Your task to perform on an android device: Clear the cart on walmart. Add "sony triple a" to the cart on walmart Image 0: 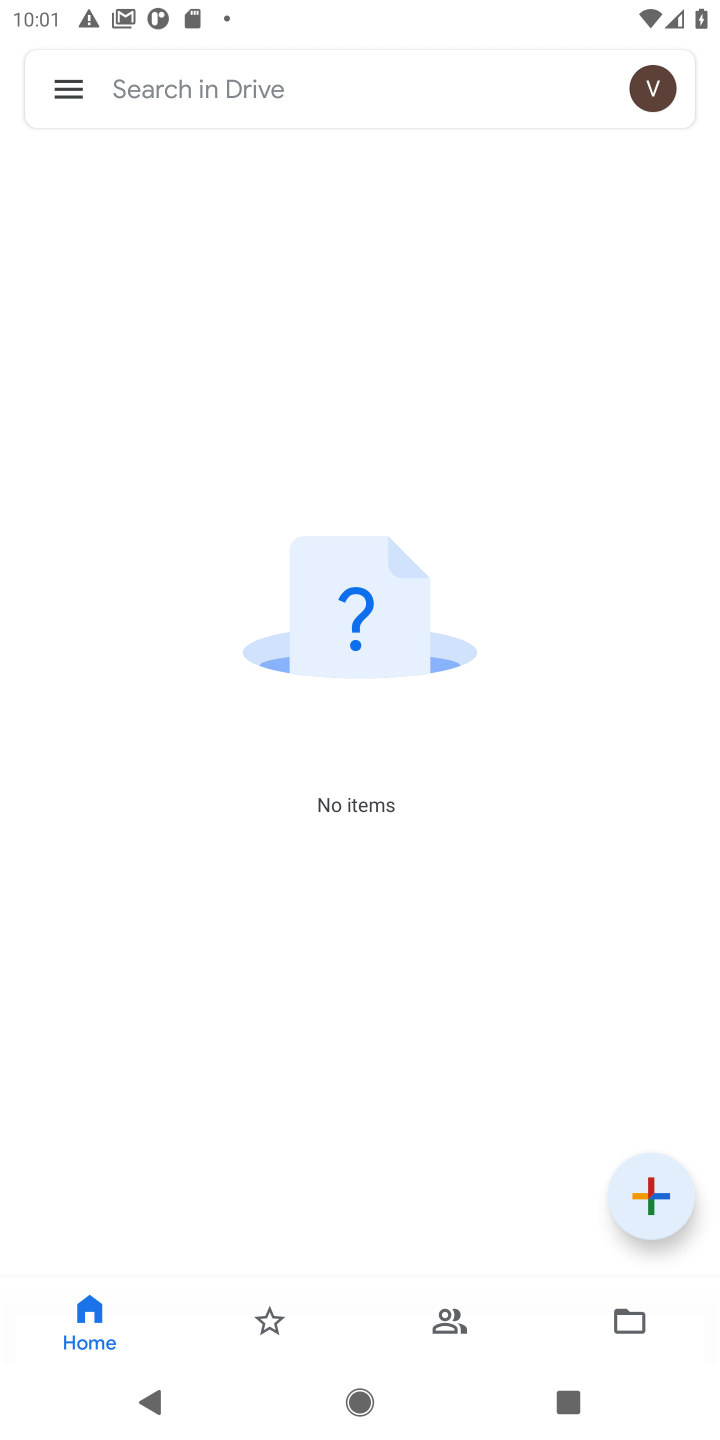
Step 0: press home button
Your task to perform on an android device: Clear the cart on walmart. Add "sony triple a" to the cart on walmart Image 1: 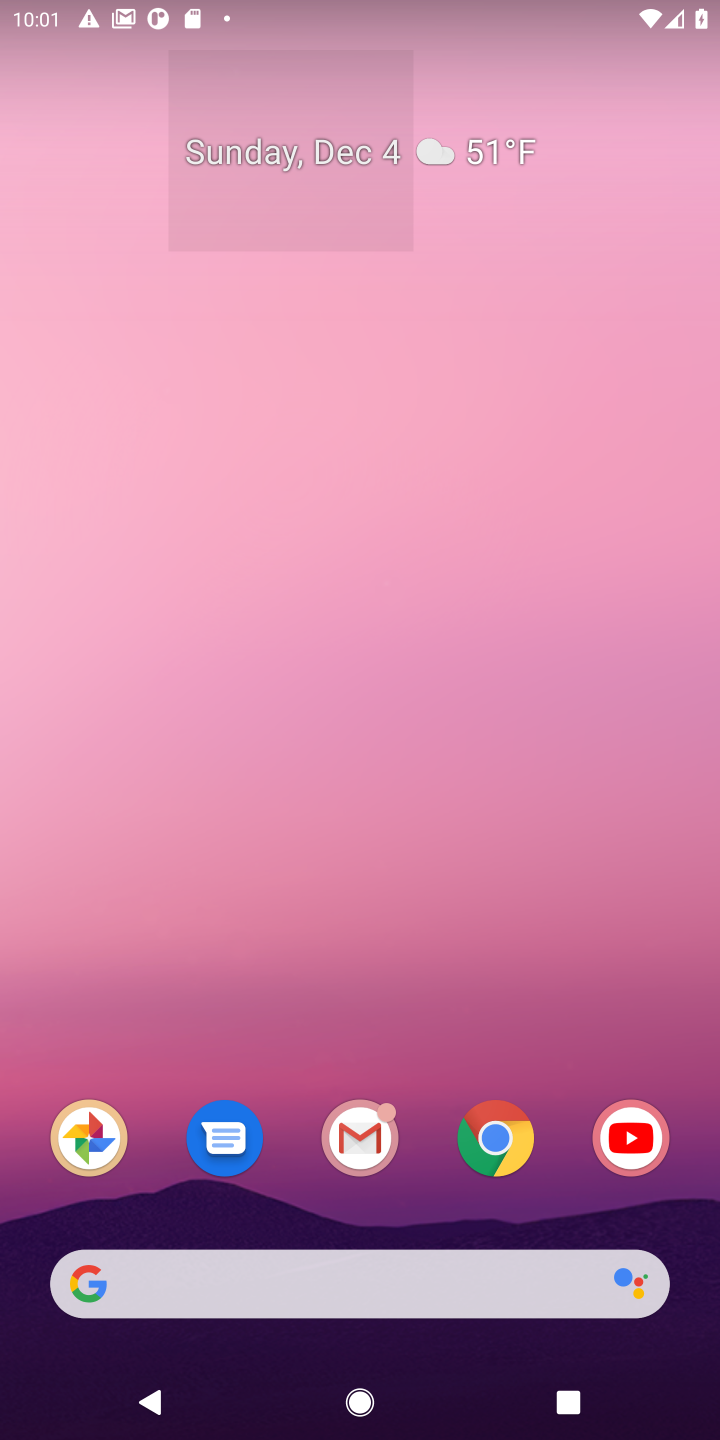
Step 1: click (504, 1127)
Your task to perform on an android device: Clear the cart on walmart. Add "sony triple a" to the cart on walmart Image 2: 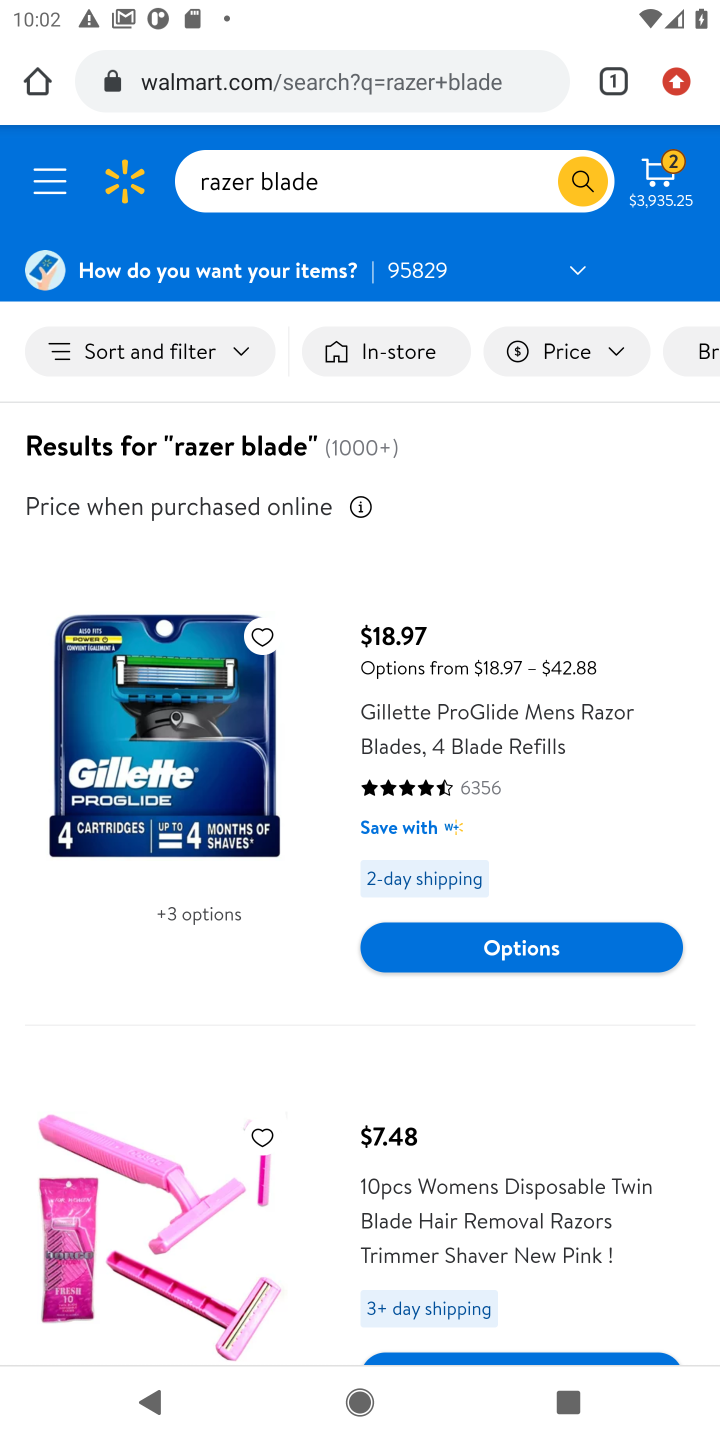
Step 2: click (667, 180)
Your task to perform on an android device: Clear the cart on walmart. Add "sony triple a" to the cart on walmart Image 3: 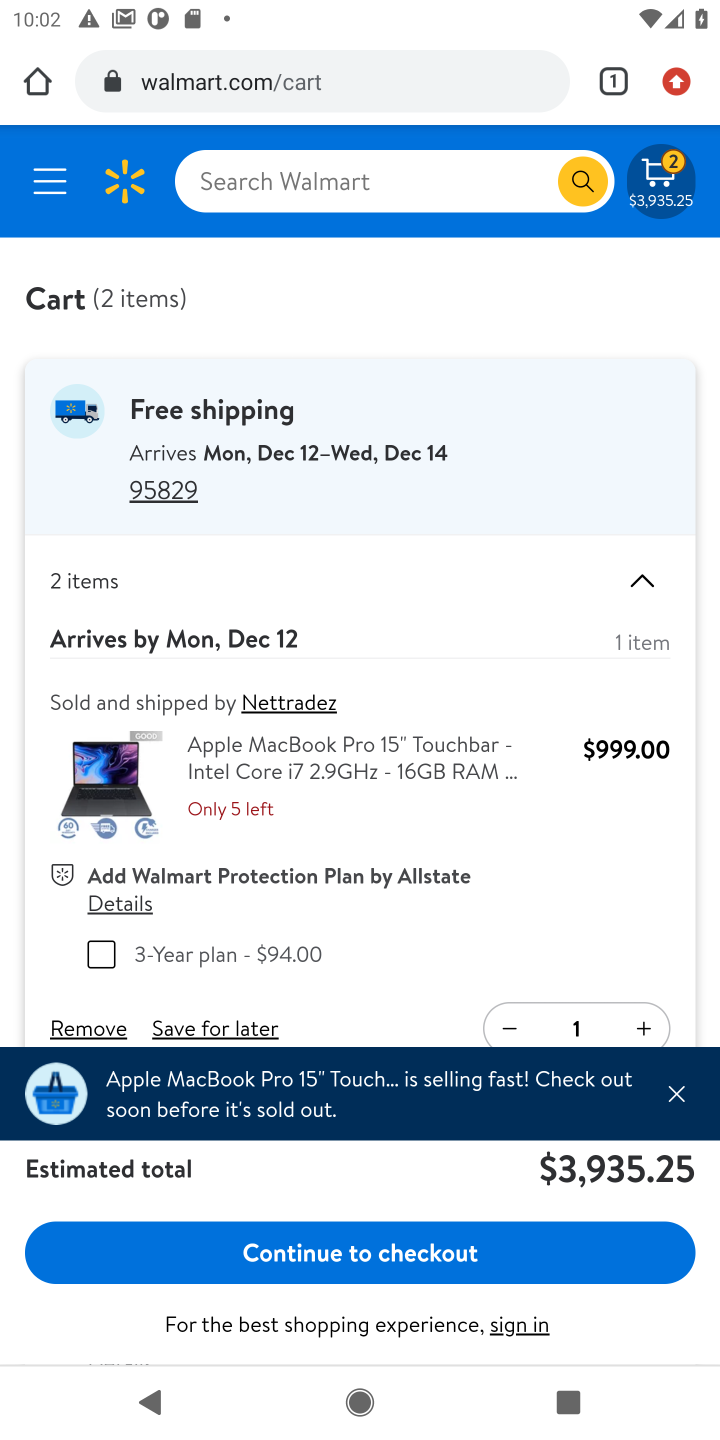
Step 3: drag from (443, 931) to (464, 314)
Your task to perform on an android device: Clear the cart on walmart. Add "sony triple a" to the cart on walmart Image 4: 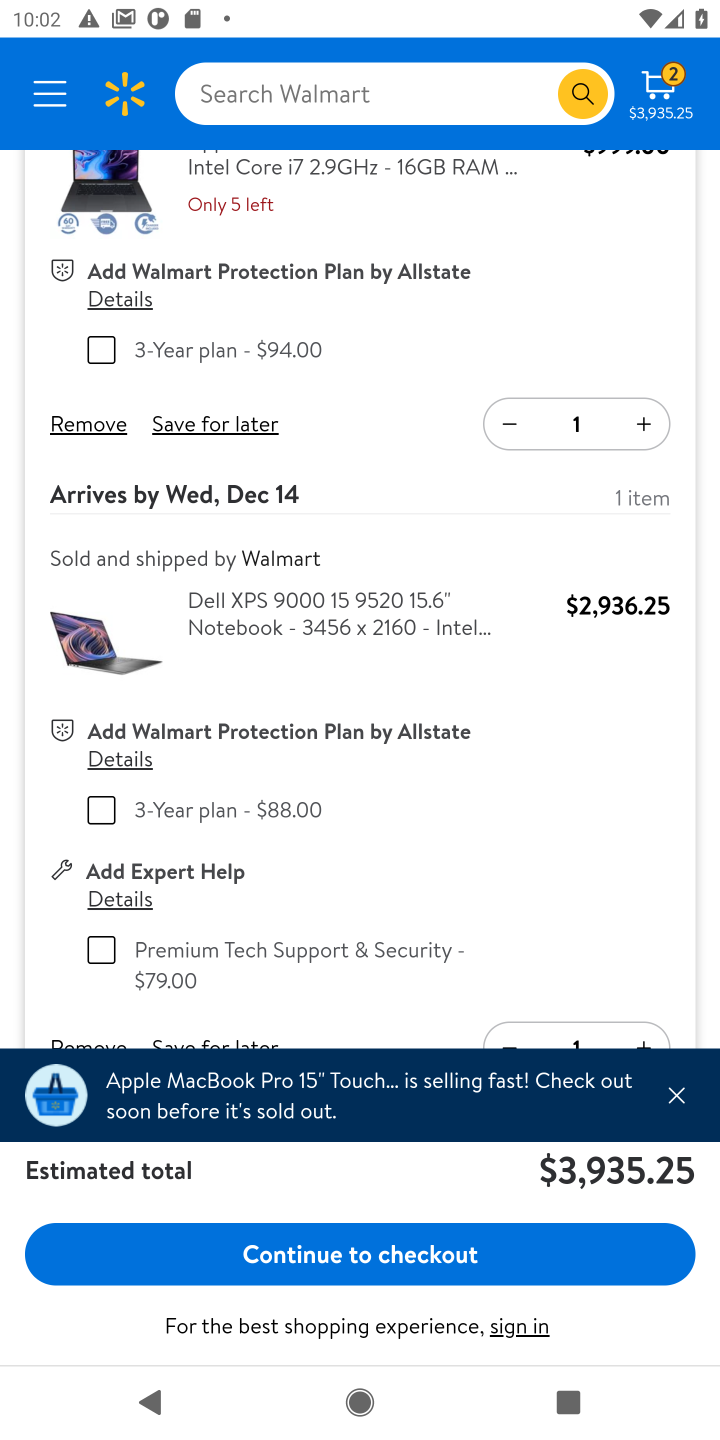
Step 4: click (100, 421)
Your task to perform on an android device: Clear the cart on walmart. Add "sony triple a" to the cart on walmart Image 5: 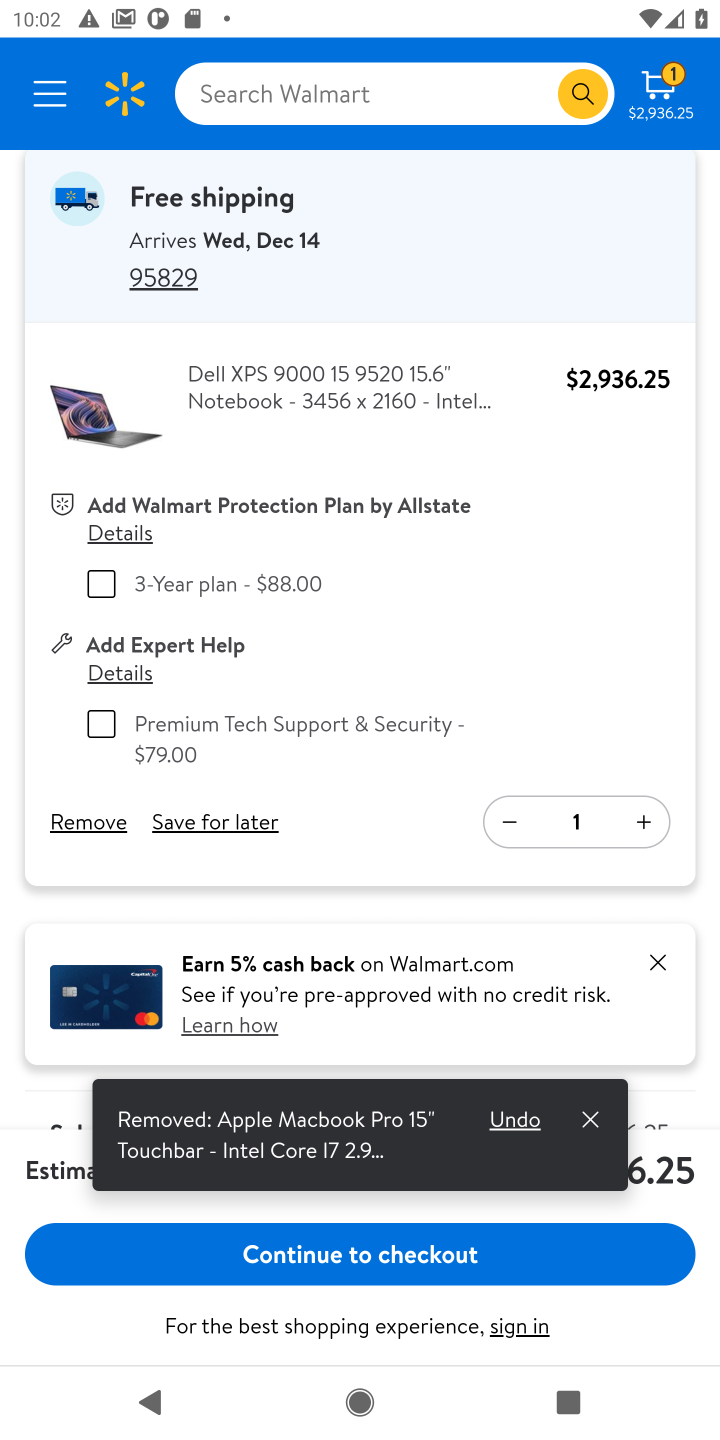
Step 5: click (92, 821)
Your task to perform on an android device: Clear the cart on walmart. Add "sony triple a" to the cart on walmart Image 6: 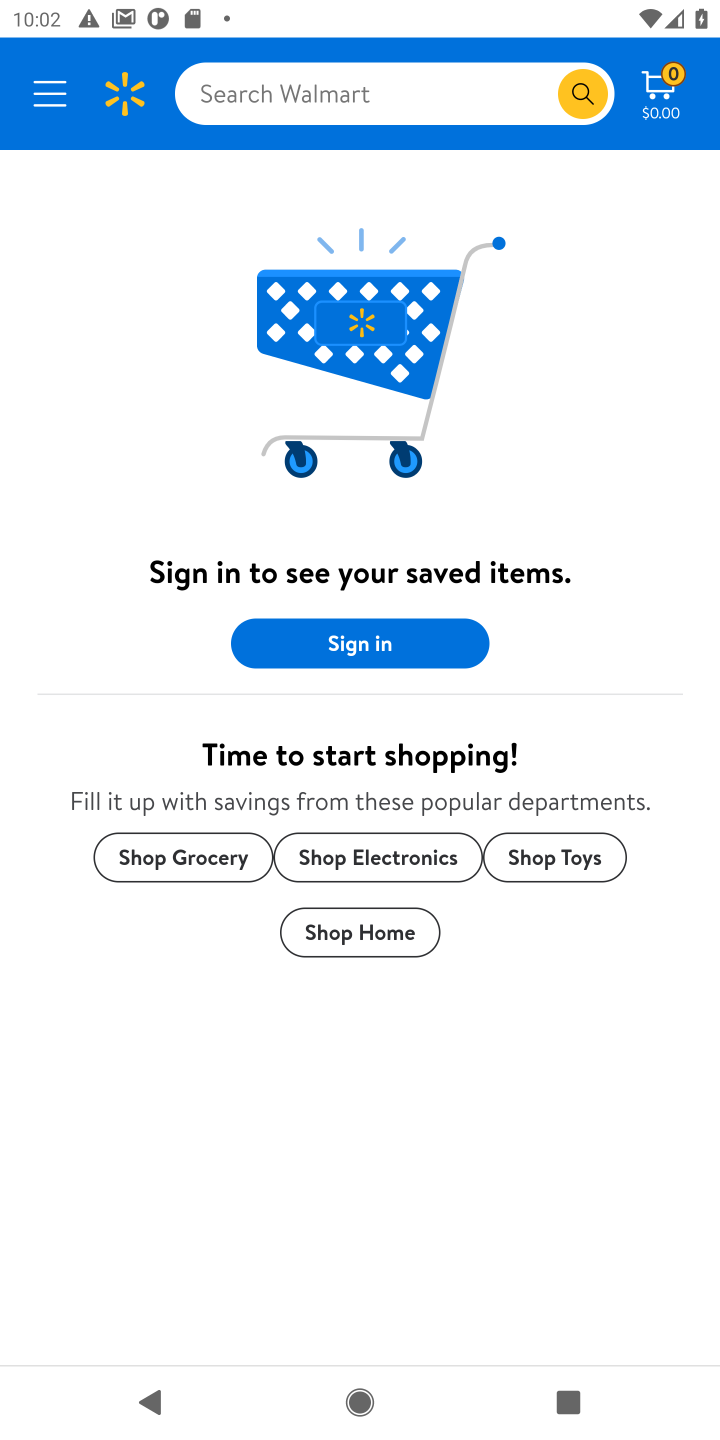
Step 6: click (364, 102)
Your task to perform on an android device: Clear the cart on walmart. Add "sony triple a" to the cart on walmart Image 7: 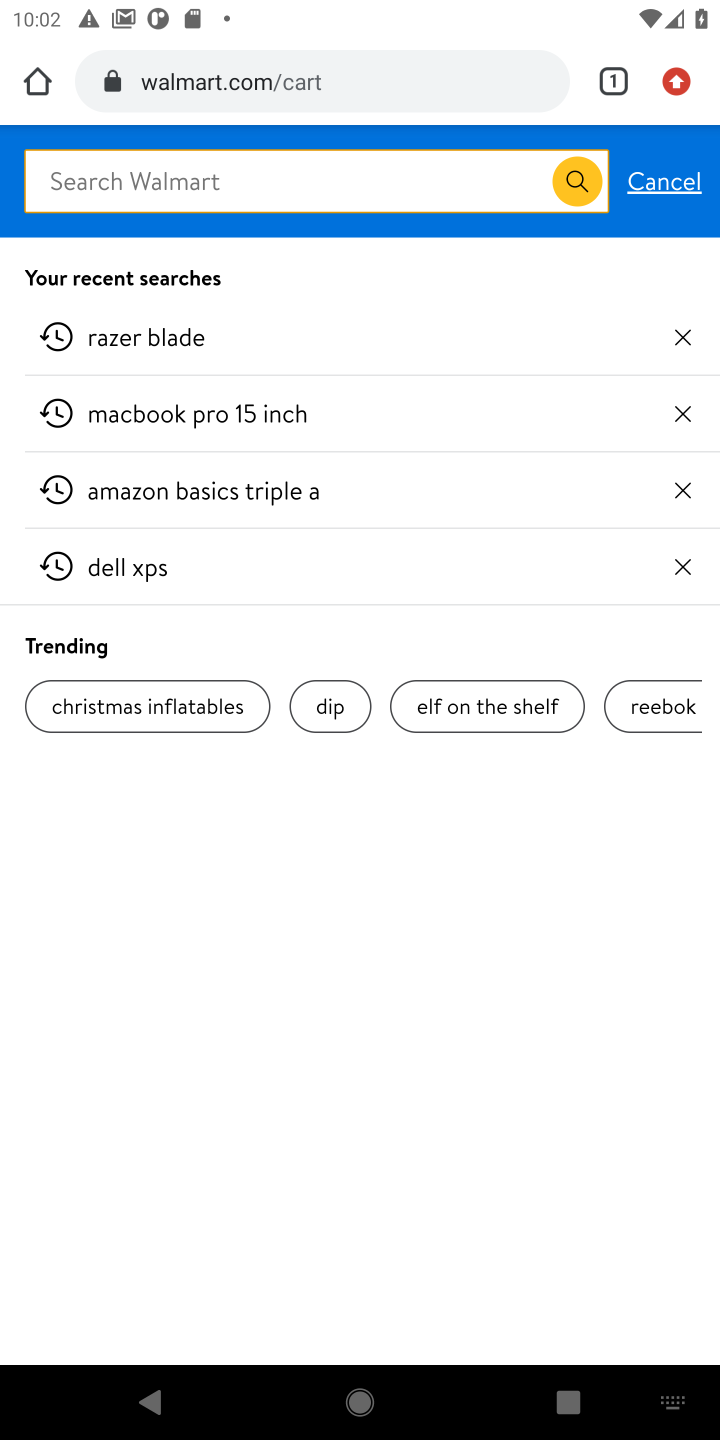
Step 7: press enter
Your task to perform on an android device: Clear the cart on walmart. Add "sony triple a" to the cart on walmart Image 8: 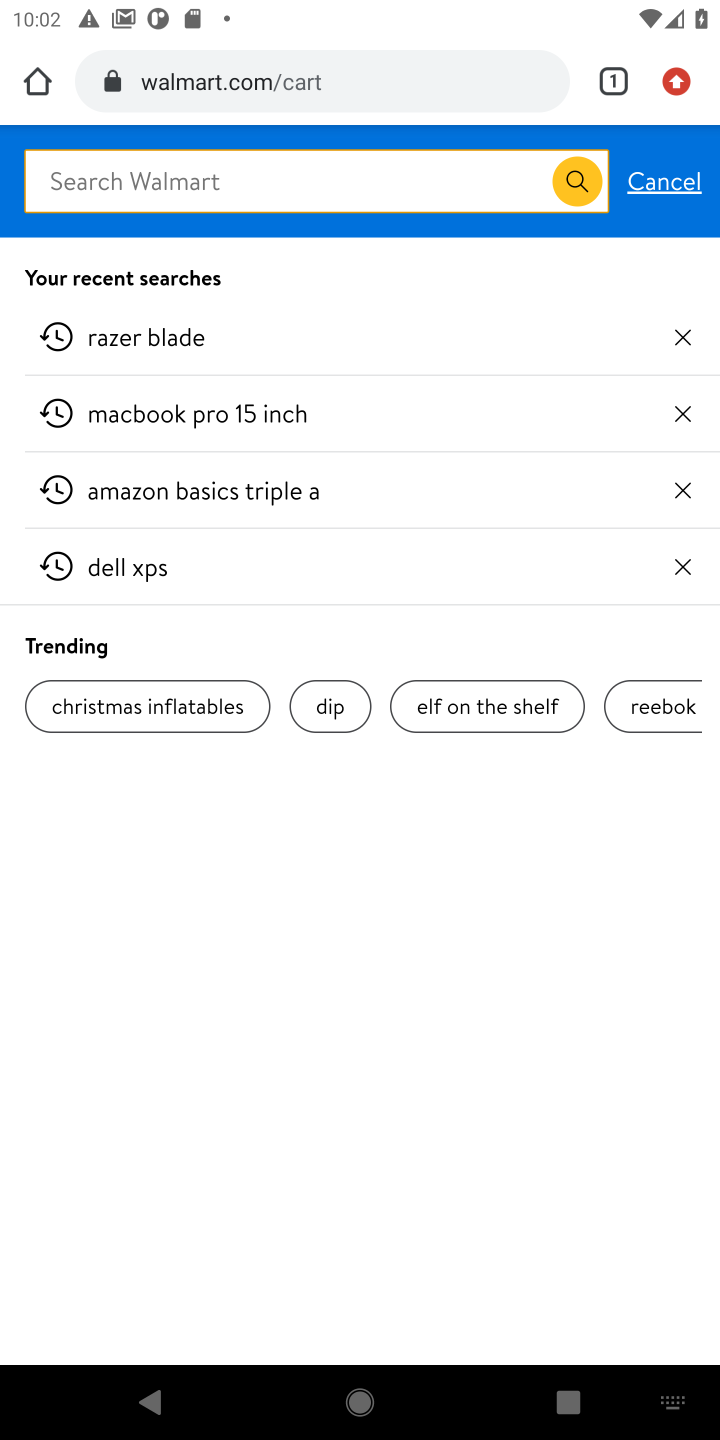
Step 8: type "sony triple a"
Your task to perform on an android device: Clear the cart on walmart. Add "sony triple a" to the cart on walmart Image 9: 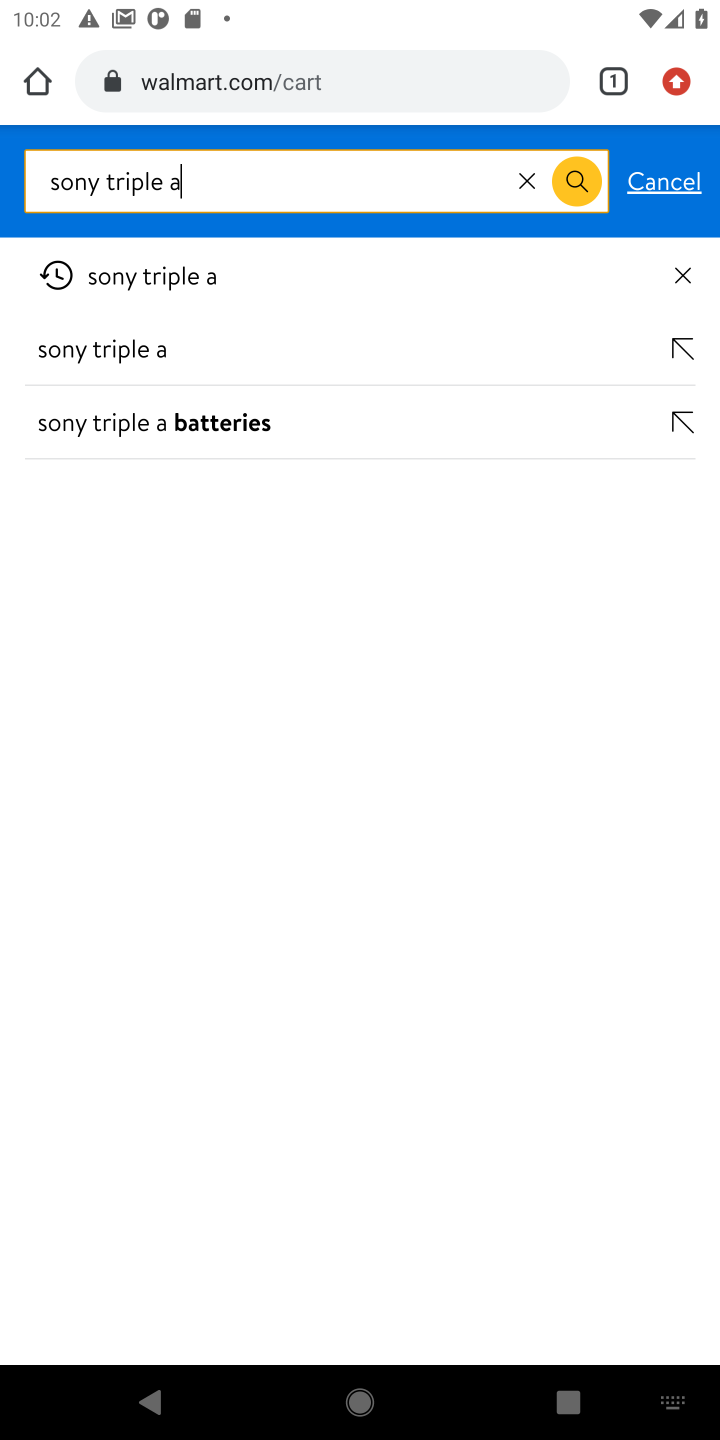
Step 9: click (148, 344)
Your task to perform on an android device: Clear the cart on walmart. Add "sony triple a" to the cart on walmart Image 10: 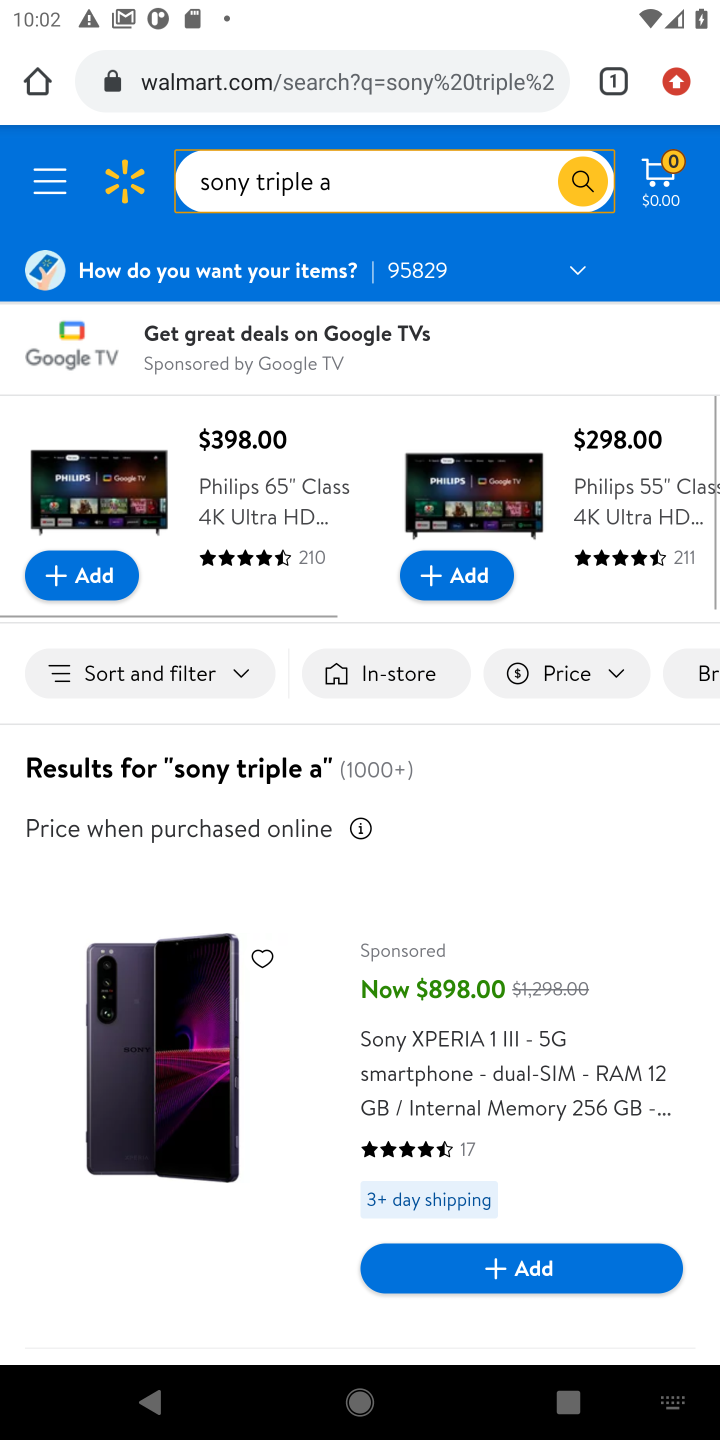
Step 10: click (155, 1057)
Your task to perform on an android device: Clear the cart on walmart. Add "sony triple a" to the cart on walmart Image 11: 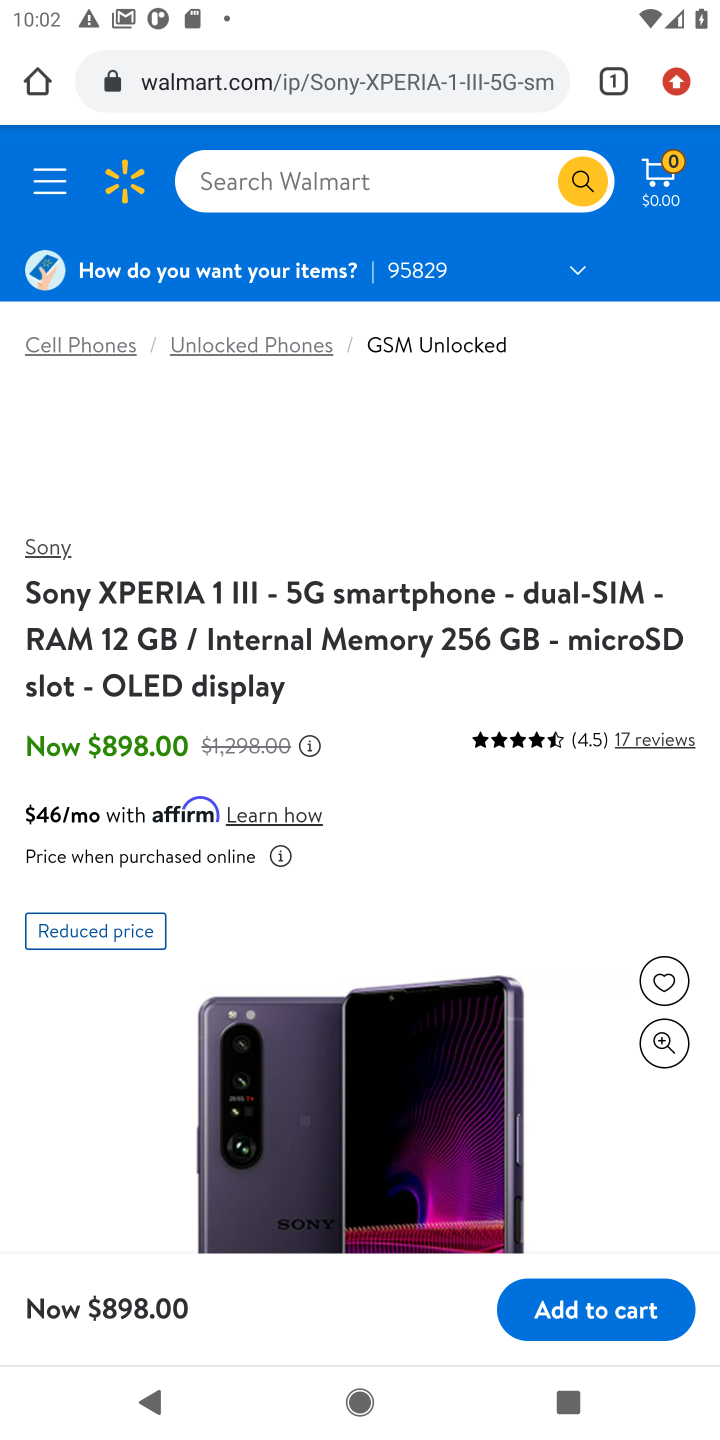
Step 11: click (600, 1307)
Your task to perform on an android device: Clear the cart on walmart. Add "sony triple a" to the cart on walmart Image 12: 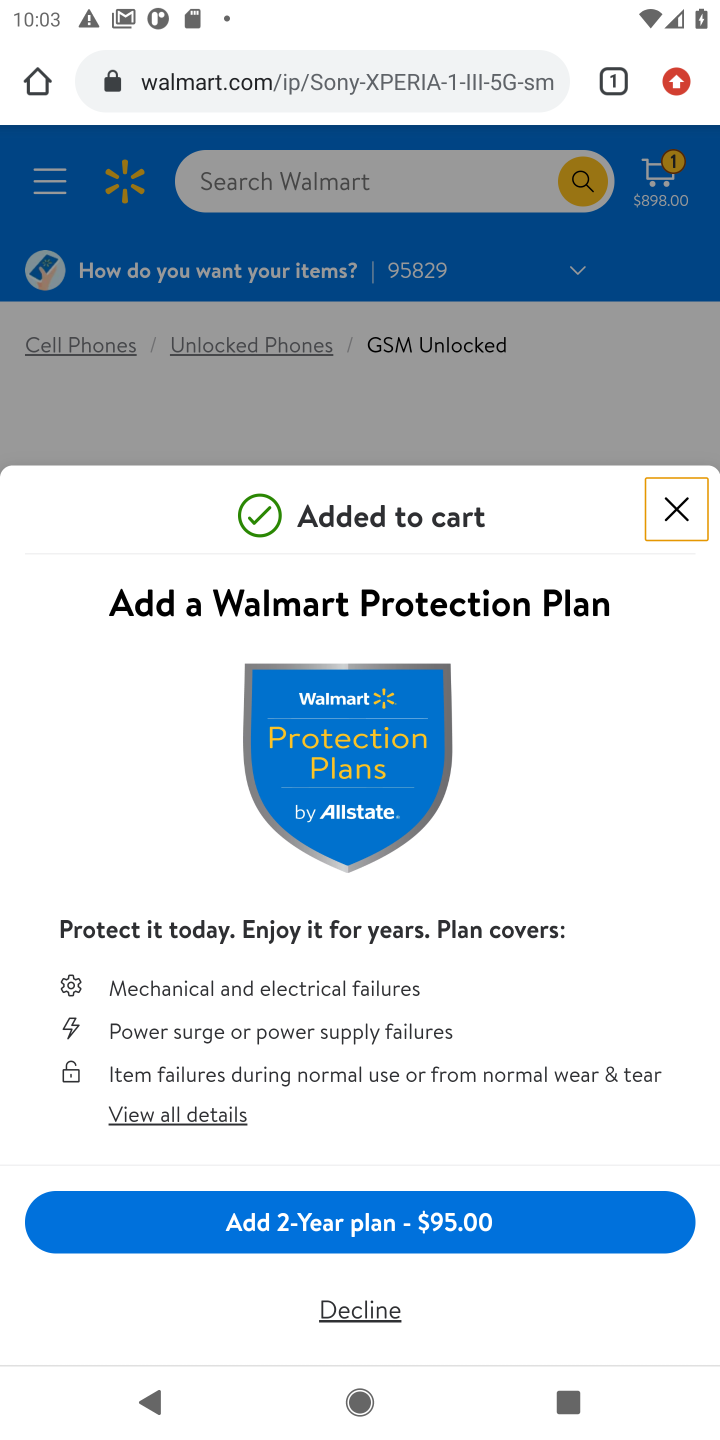
Step 12: task complete